Your task to perform on an android device: turn off airplane mode Image 0: 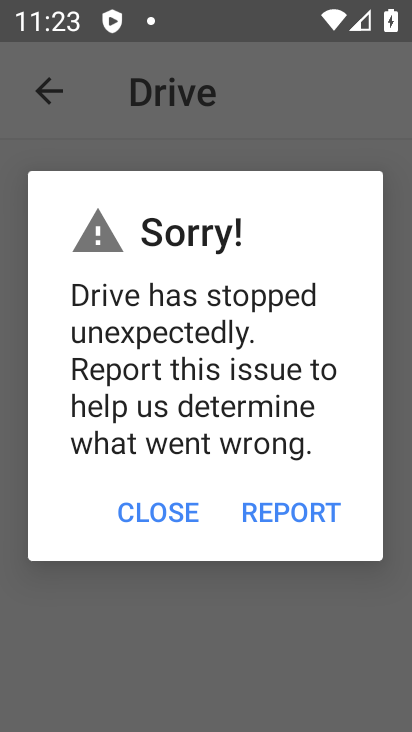
Step 0: press home button
Your task to perform on an android device: turn off airplane mode Image 1: 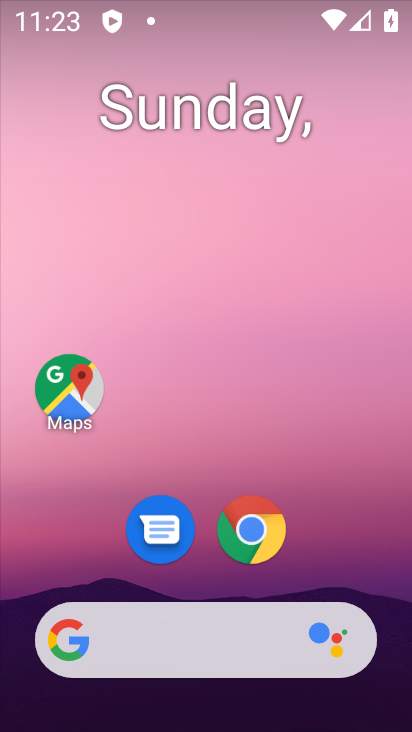
Step 1: drag from (338, 555) to (246, 85)
Your task to perform on an android device: turn off airplane mode Image 2: 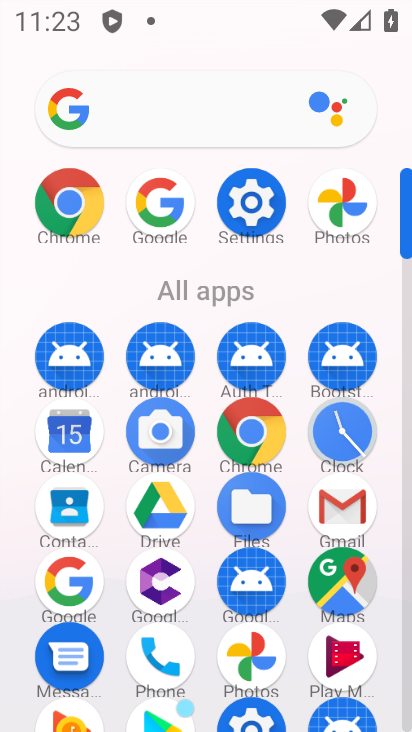
Step 2: click (251, 203)
Your task to perform on an android device: turn off airplane mode Image 3: 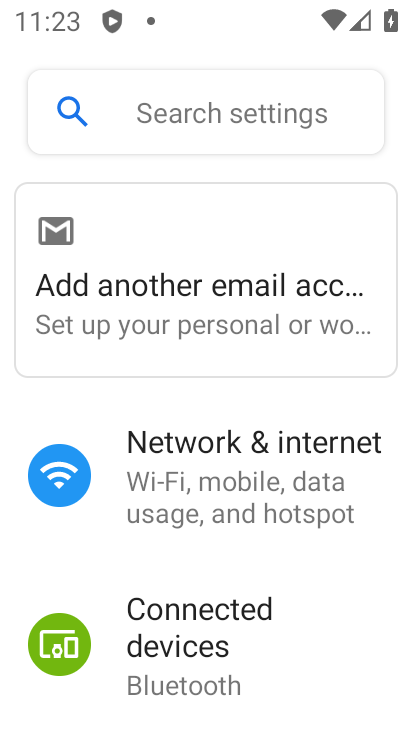
Step 3: click (237, 441)
Your task to perform on an android device: turn off airplane mode Image 4: 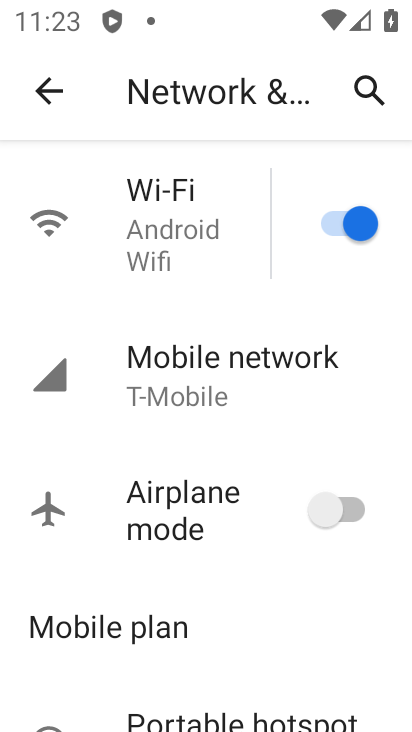
Step 4: task complete